Your task to perform on an android device: Show me productivity apps on the Play Store Image 0: 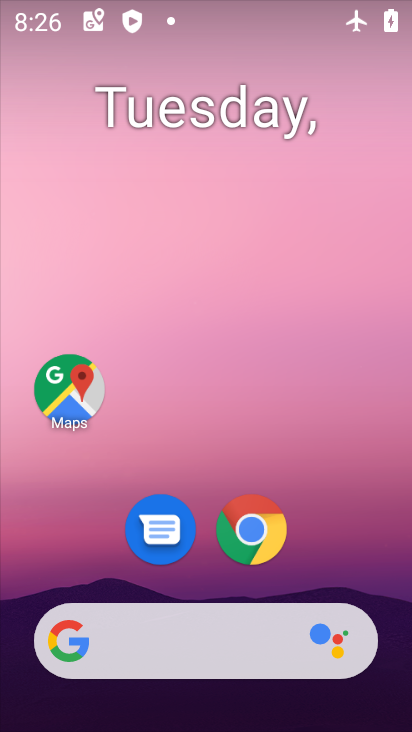
Step 0: drag from (226, 626) to (201, 178)
Your task to perform on an android device: Show me productivity apps on the Play Store Image 1: 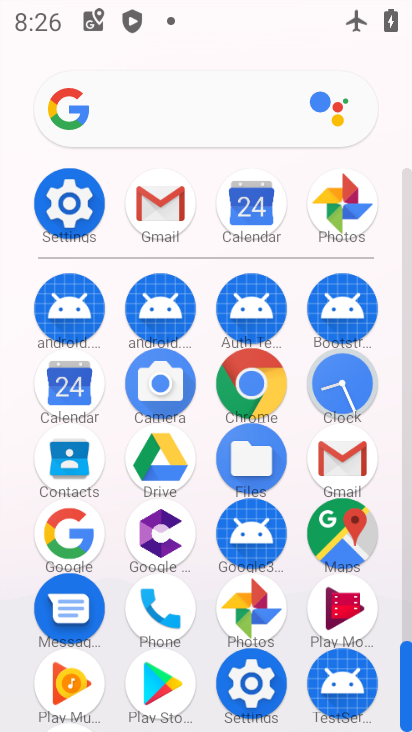
Step 1: click (166, 675)
Your task to perform on an android device: Show me productivity apps on the Play Store Image 2: 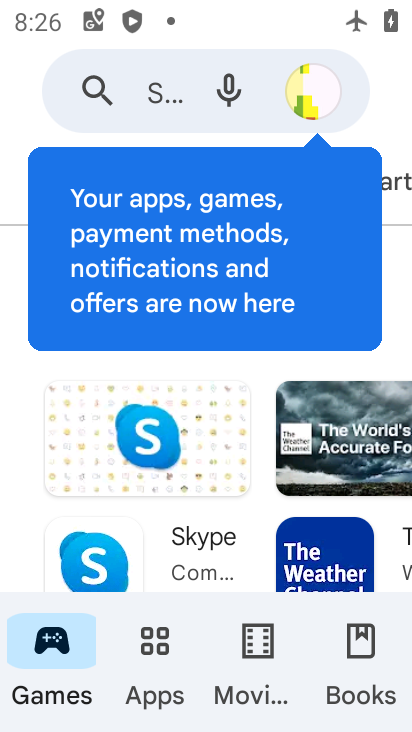
Step 2: click (175, 92)
Your task to perform on an android device: Show me productivity apps on the Play Store Image 3: 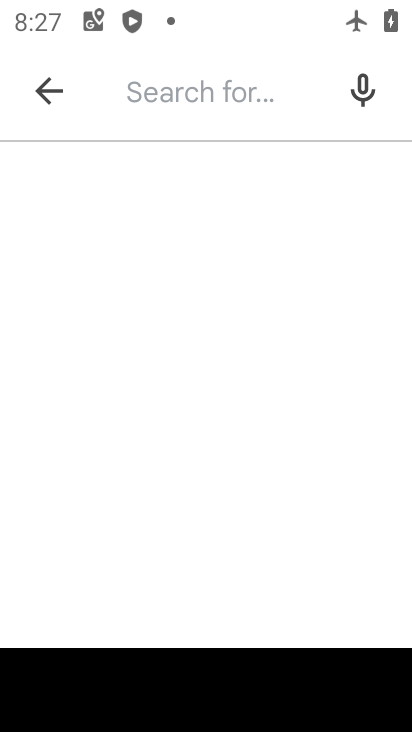
Step 3: type "productivity aaps"
Your task to perform on an android device: Show me productivity apps on the Play Store Image 4: 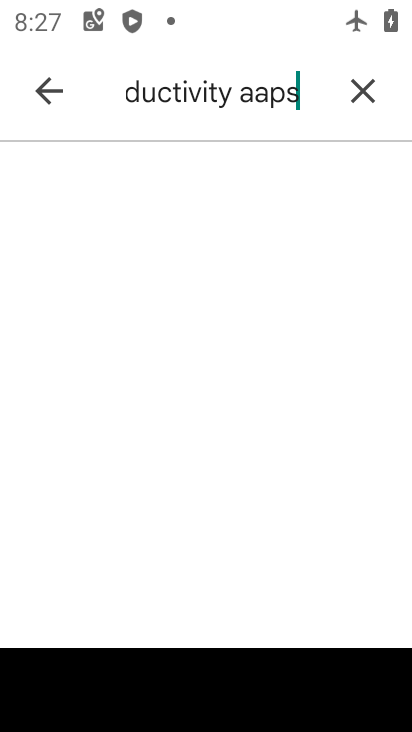
Step 4: task complete